Your task to perform on an android device: change notification settings in the gmail app Image 0: 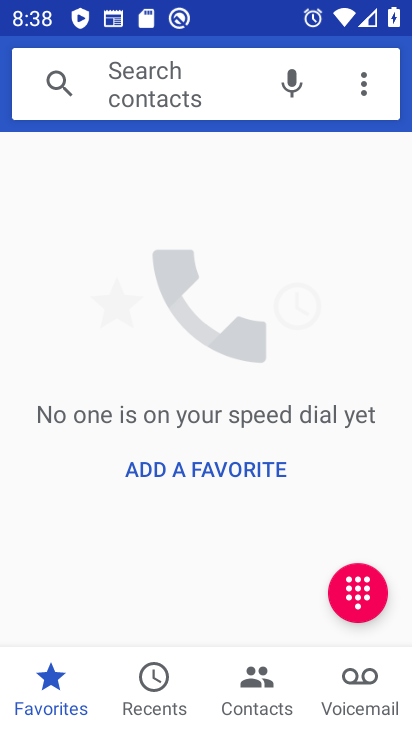
Step 0: press home button
Your task to perform on an android device: change notification settings in the gmail app Image 1: 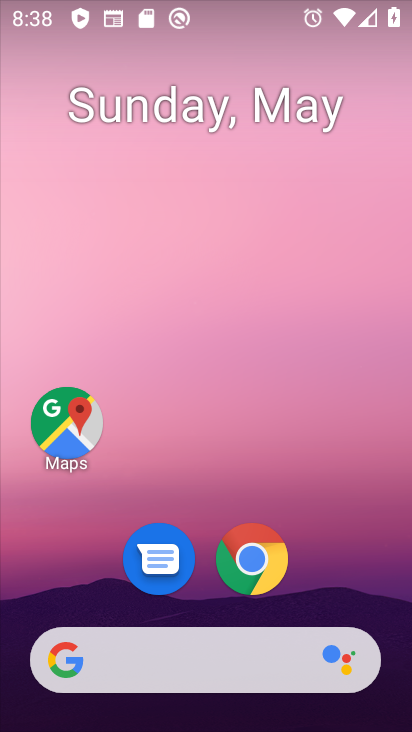
Step 1: drag from (18, 567) to (212, 109)
Your task to perform on an android device: change notification settings in the gmail app Image 2: 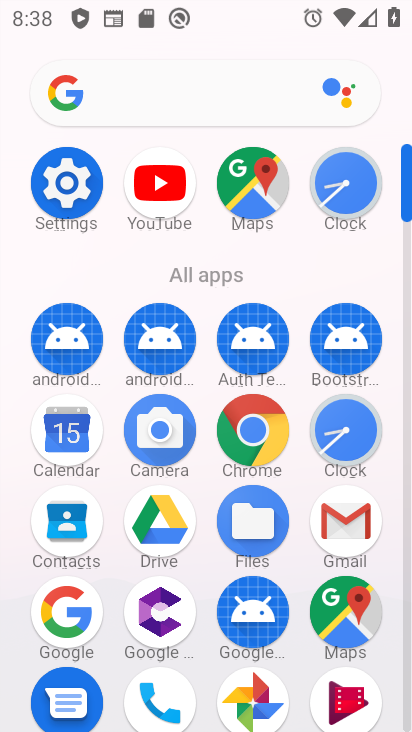
Step 2: click (357, 513)
Your task to perform on an android device: change notification settings in the gmail app Image 3: 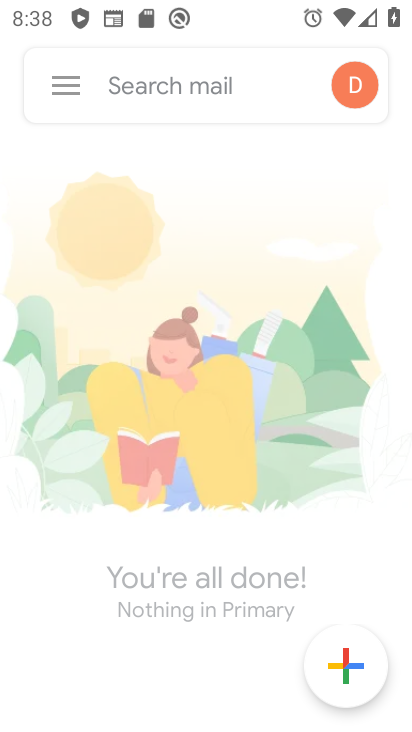
Step 3: click (49, 87)
Your task to perform on an android device: change notification settings in the gmail app Image 4: 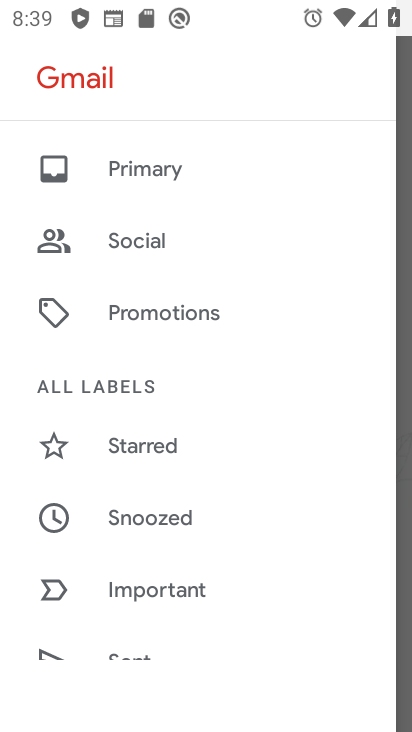
Step 4: drag from (67, 613) to (324, 120)
Your task to perform on an android device: change notification settings in the gmail app Image 5: 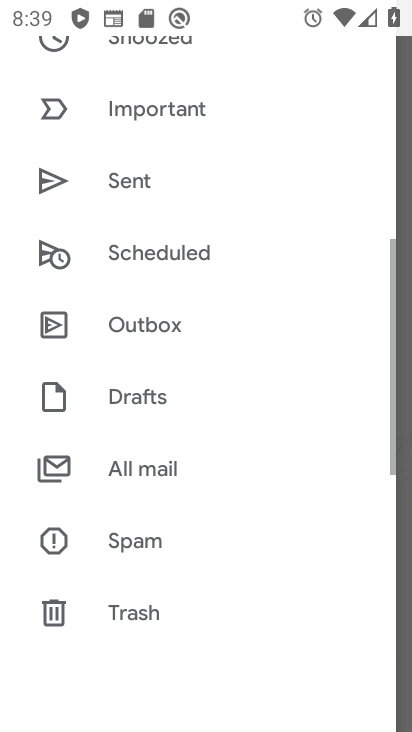
Step 5: drag from (63, 584) to (326, 118)
Your task to perform on an android device: change notification settings in the gmail app Image 6: 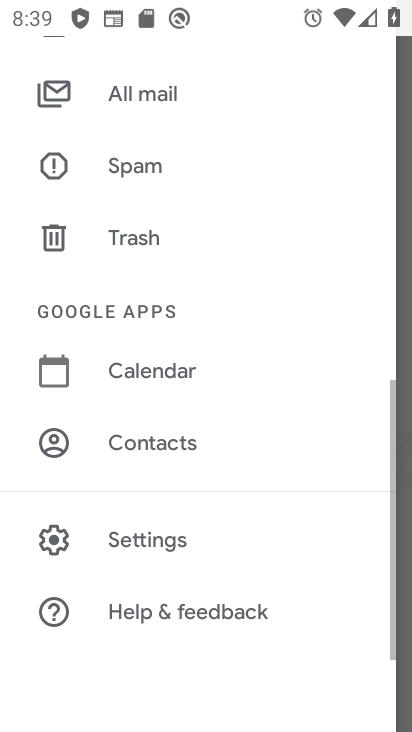
Step 6: click (233, 536)
Your task to perform on an android device: change notification settings in the gmail app Image 7: 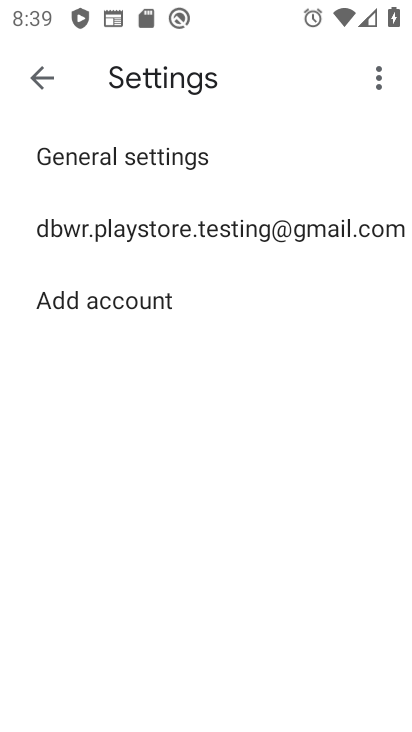
Step 7: click (174, 229)
Your task to perform on an android device: change notification settings in the gmail app Image 8: 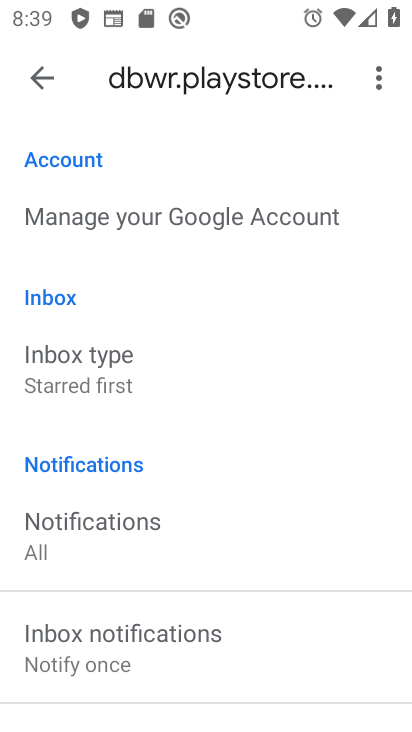
Step 8: drag from (20, 623) to (253, 156)
Your task to perform on an android device: change notification settings in the gmail app Image 9: 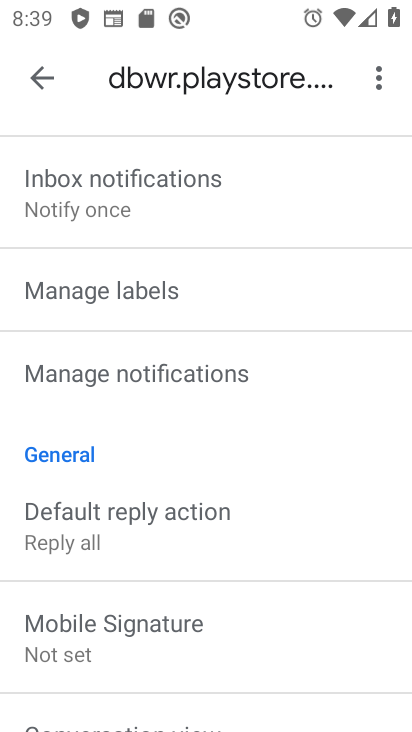
Step 9: click (189, 372)
Your task to perform on an android device: change notification settings in the gmail app Image 10: 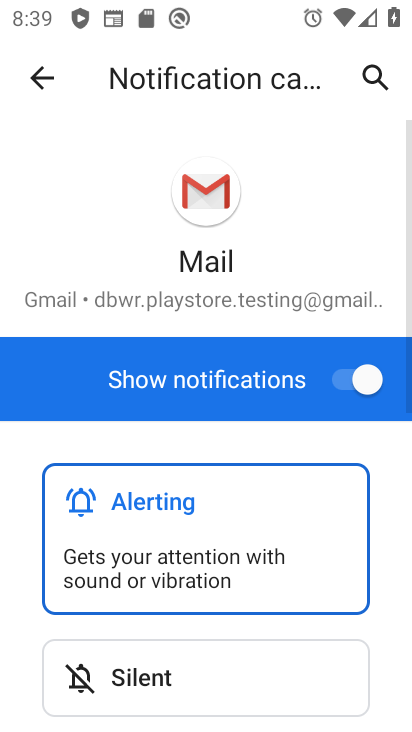
Step 10: click (367, 375)
Your task to perform on an android device: change notification settings in the gmail app Image 11: 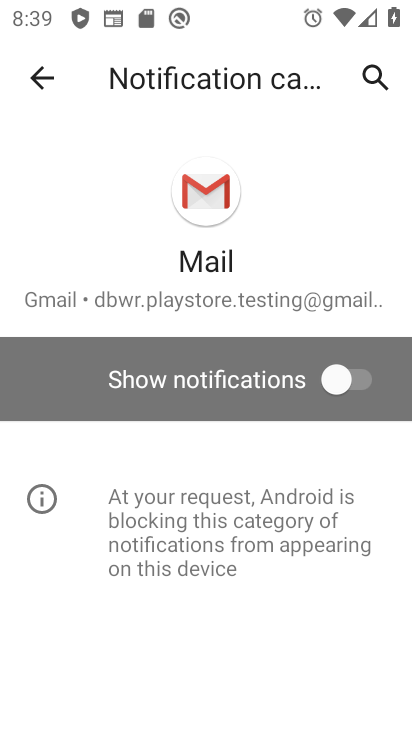
Step 11: task complete